Your task to perform on an android device: Open Wikipedia Image 0: 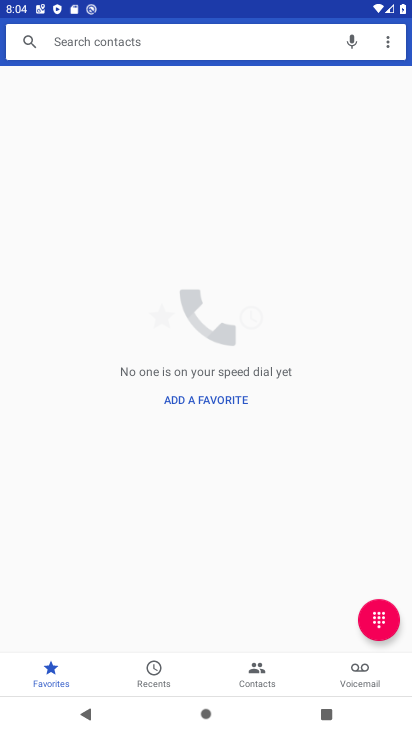
Step 0: press home button
Your task to perform on an android device: Open Wikipedia Image 1: 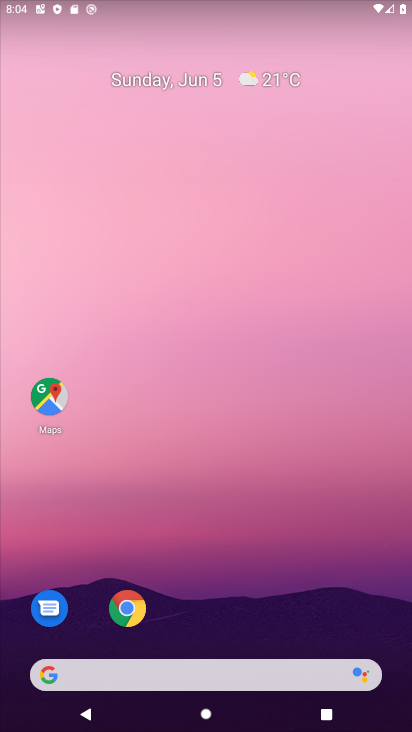
Step 1: drag from (354, 592) to (332, 328)
Your task to perform on an android device: Open Wikipedia Image 2: 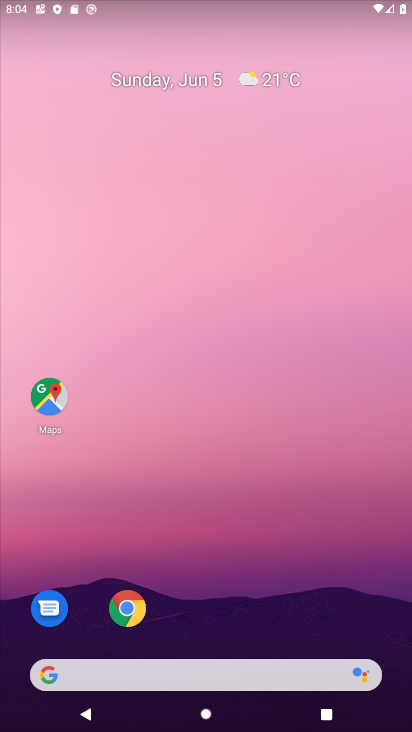
Step 2: drag from (312, 594) to (293, 214)
Your task to perform on an android device: Open Wikipedia Image 3: 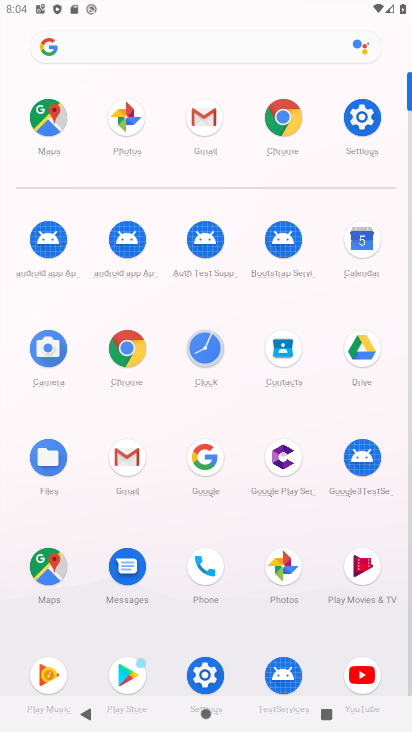
Step 3: click (140, 359)
Your task to perform on an android device: Open Wikipedia Image 4: 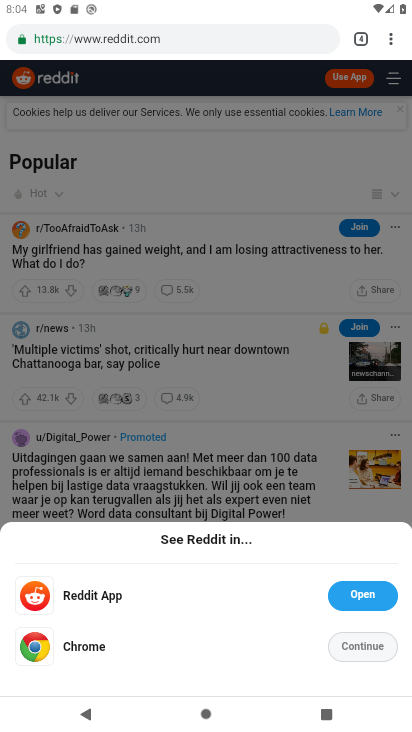
Step 4: click (360, 34)
Your task to perform on an android device: Open Wikipedia Image 5: 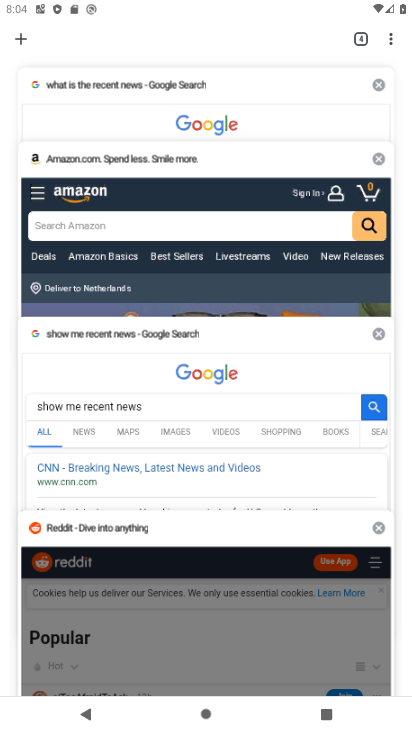
Step 5: click (23, 46)
Your task to perform on an android device: Open Wikipedia Image 6: 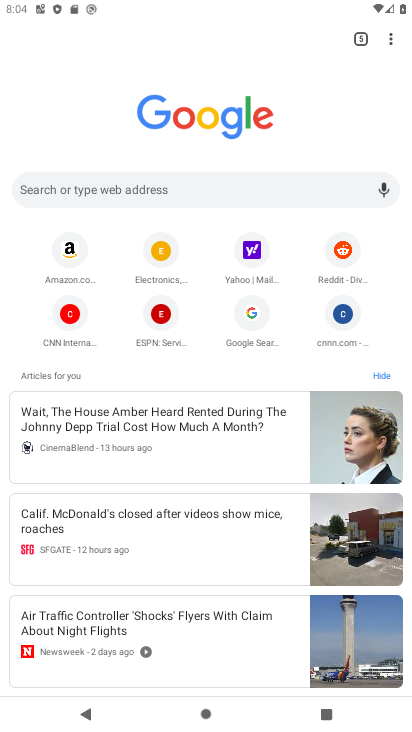
Step 6: click (135, 197)
Your task to perform on an android device: Open Wikipedia Image 7: 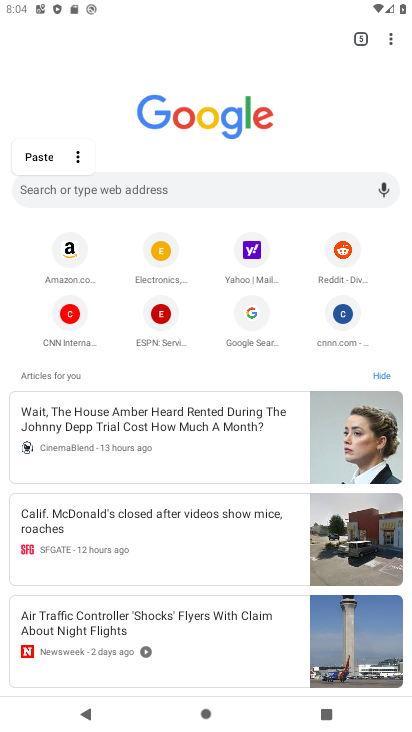
Step 7: click (222, 203)
Your task to perform on an android device: Open Wikipedia Image 8: 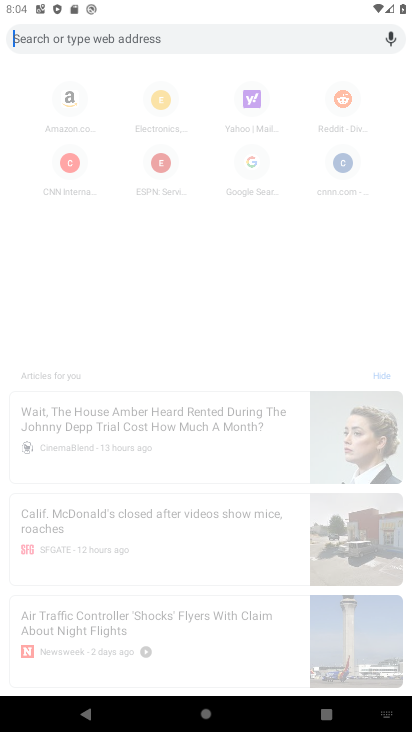
Step 8: type "wikipedia"
Your task to perform on an android device: Open Wikipedia Image 9: 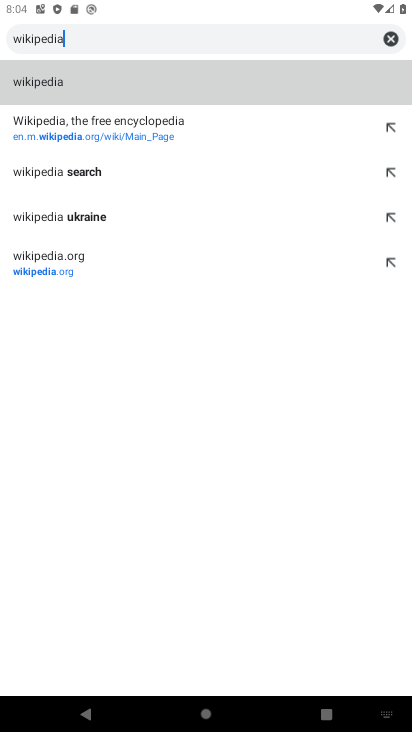
Step 9: click (68, 74)
Your task to perform on an android device: Open Wikipedia Image 10: 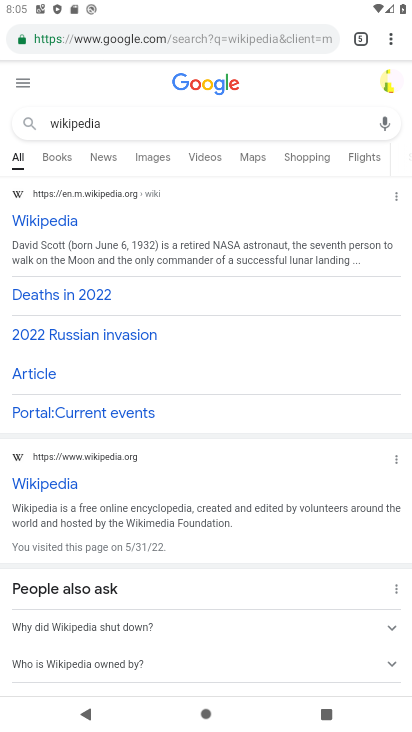
Step 10: click (49, 223)
Your task to perform on an android device: Open Wikipedia Image 11: 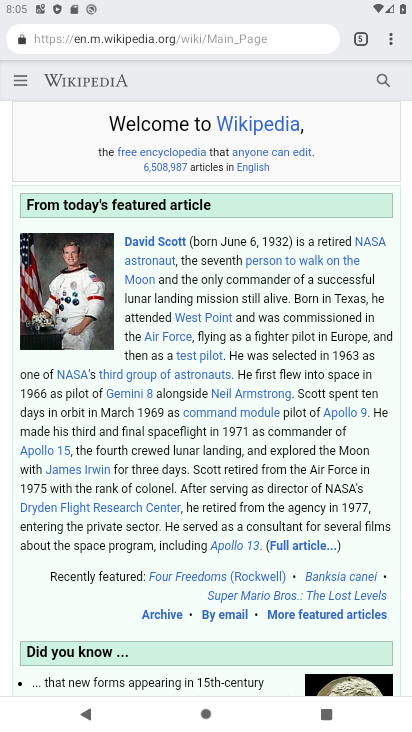
Step 11: task complete